Your task to perform on an android device: Add "asus rog" to the cart on amazon, then select checkout. Image 0: 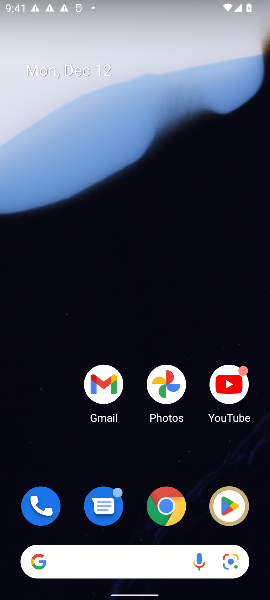
Step 0: click (84, 564)
Your task to perform on an android device: Add "asus rog" to the cart on amazon, then select checkout. Image 1: 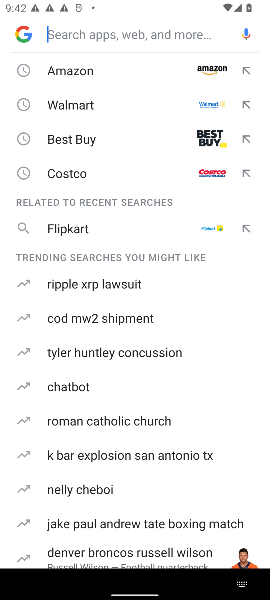
Step 1: click (80, 62)
Your task to perform on an android device: Add "asus rog" to the cart on amazon, then select checkout. Image 2: 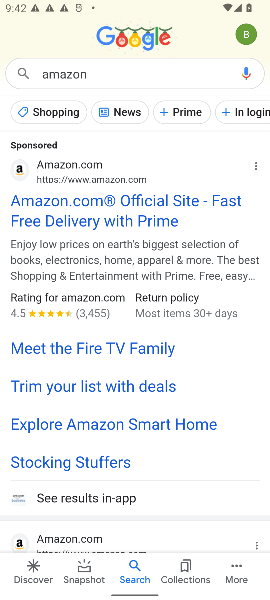
Step 2: click (57, 202)
Your task to perform on an android device: Add "asus rog" to the cart on amazon, then select checkout. Image 3: 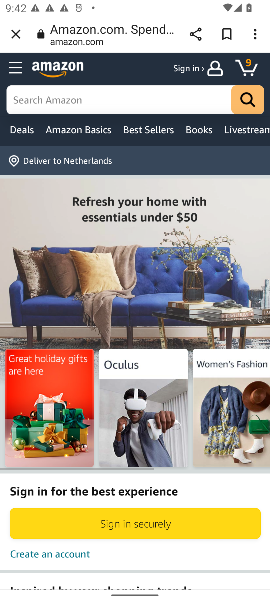
Step 3: click (104, 94)
Your task to perform on an android device: Add "asus rog" to the cart on amazon, then select checkout. Image 4: 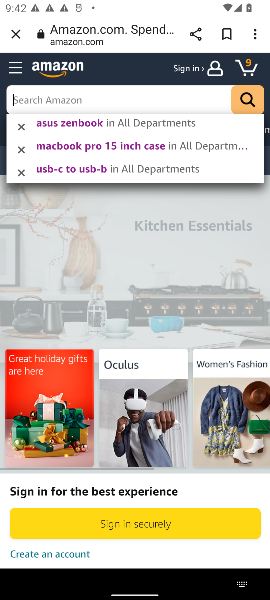
Step 4: type "asus rog"
Your task to perform on an android device: Add "asus rog" to the cart on amazon, then select checkout. Image 5: 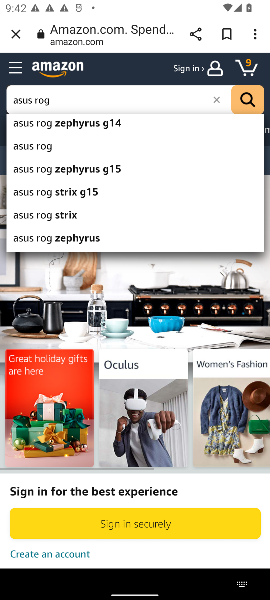
Step 5: click (257, 106)
Your task to perform on an android device: Add "asus rog" to the cart on amazon, then select checkout. Image 6: 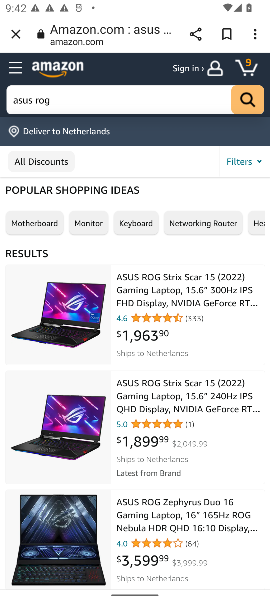
Step 6: click (159, 311)
Your task to perform on an android device: Add "asus rog" to the cart on amazon, then select checkout. Image 7: 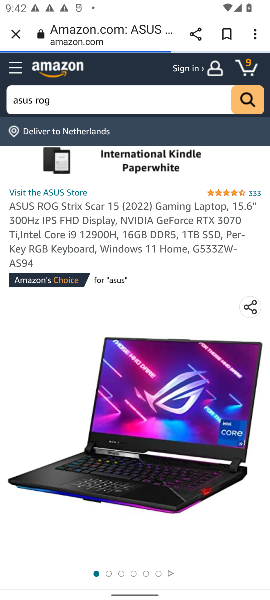
Step 7: drag from (102, 468) to (123, 152)
Your task to perform on an android device: Add "asus rog" to the cart on amazon, then select checkout. Image 8: 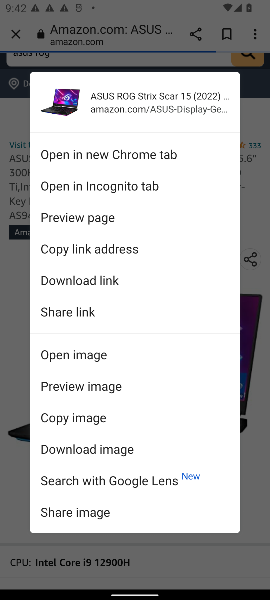
Step 8: click (258, 445)
Your task to perform on an android device: Add "asus rog" to the cart on amazon, then select checkout. Image 9: 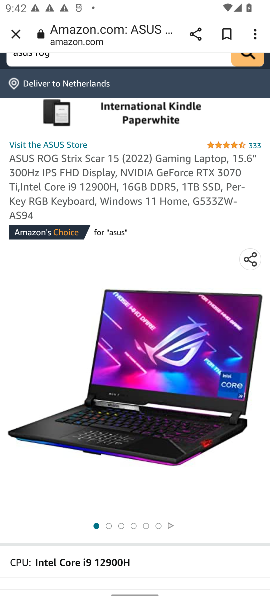
Step 9: drag from (224, 543) to (140, 166)
Your task to perform on an android device: Add "asus rog" to the cart on amazon, then select checkout. Image 10: 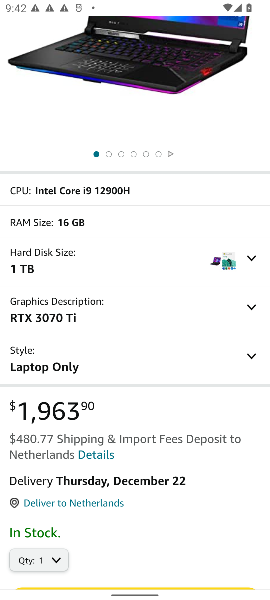
Step 10: drag from (115, 545) to (113, 191)
Your task to perform on an android device: Add "asus rog" to the cart on amazon, then select checkout. Image 11: 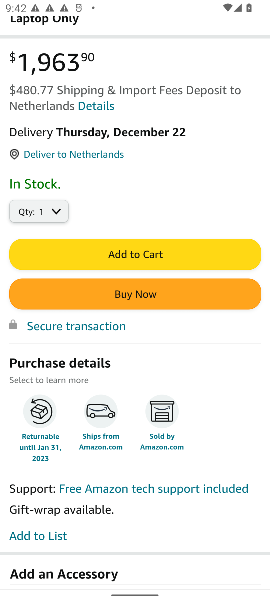
Step 11: click (157, 252)
Your task to perform on an android device: Add "asus rog" to the cart on amazon, then select checkout. Image 12: 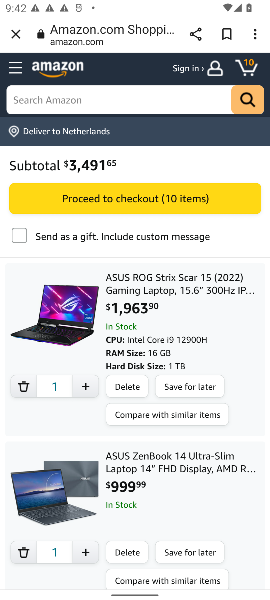
Step 12: task complete